Your task to perform on an android device: show emergency info Image 0: 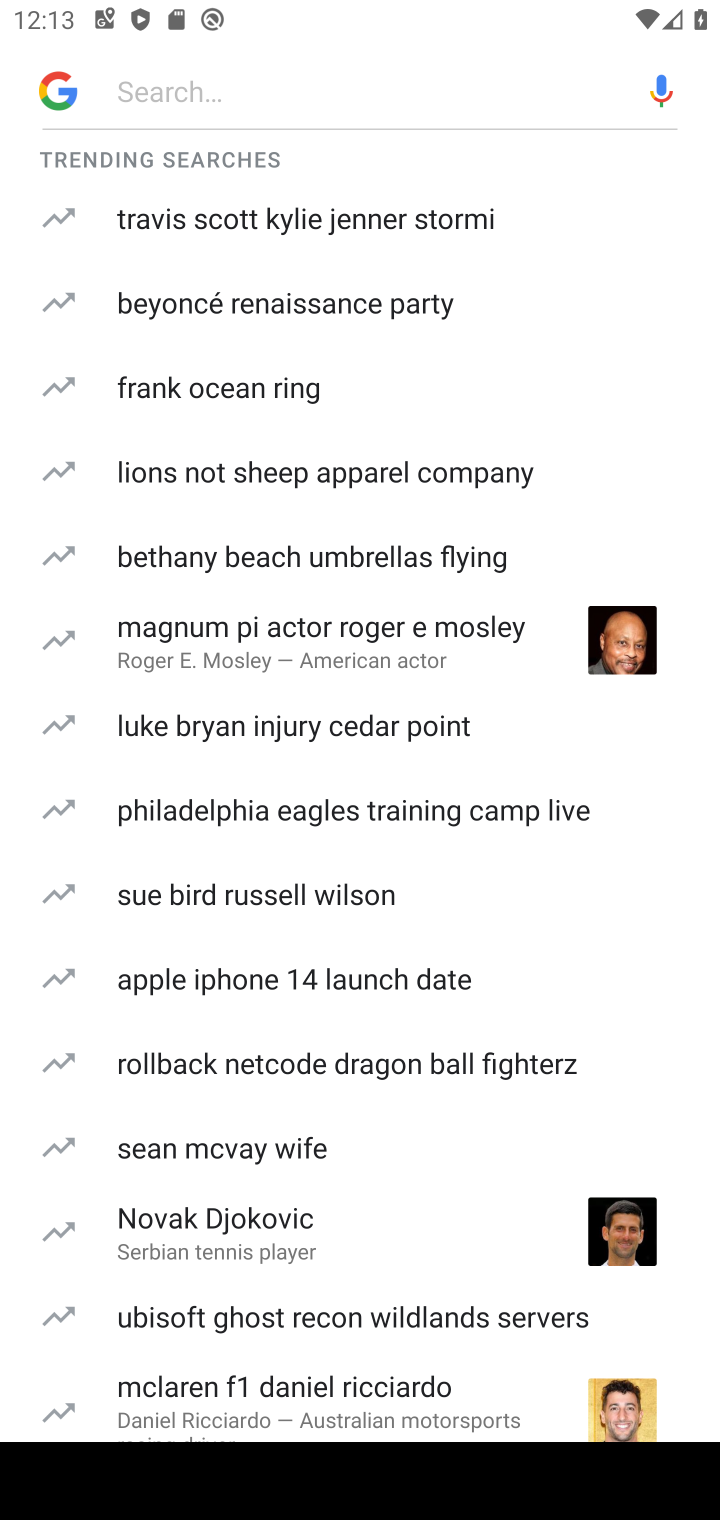
Step 0: press back button
Your task to perform on an android device: show emergency info Image 1: 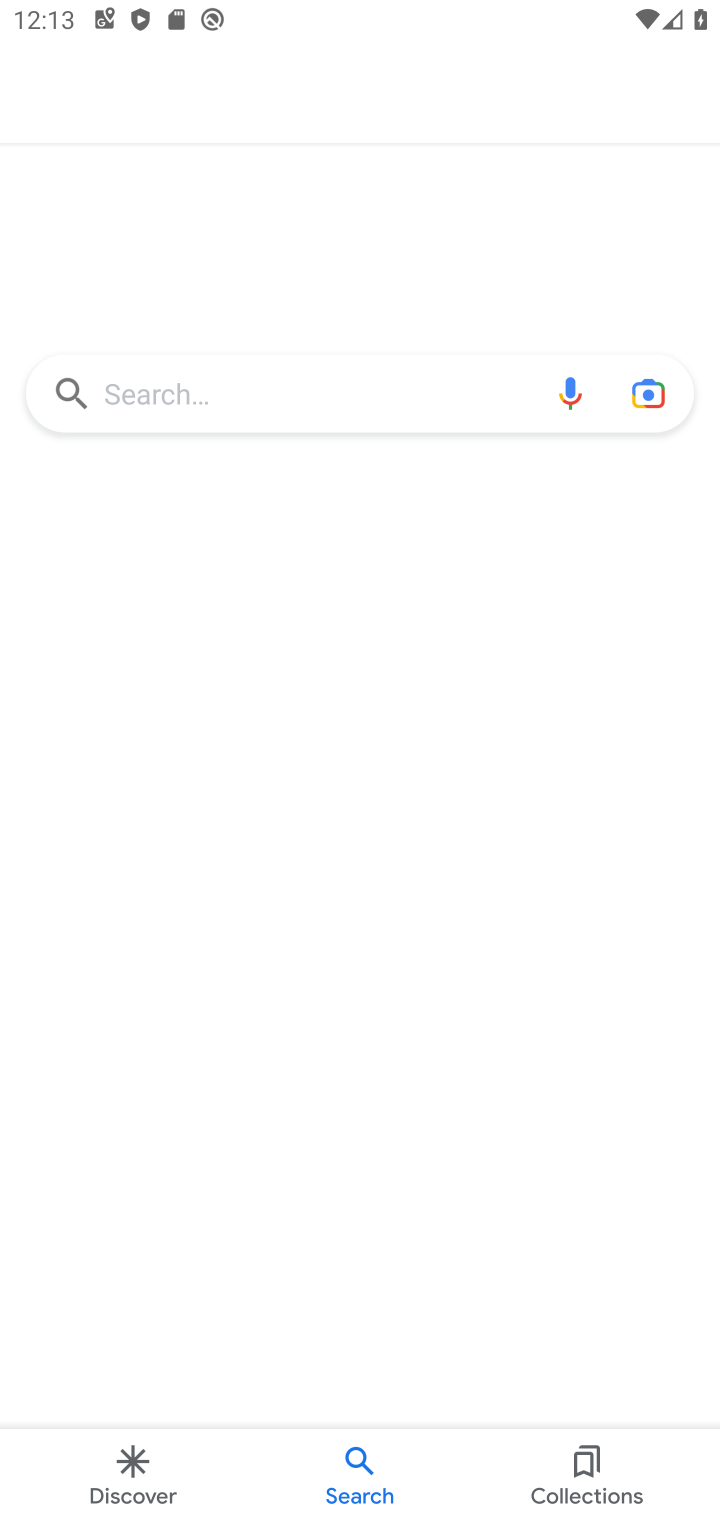
Step 1: press back button
Your task to perform on an android device: show emergency info Image 2: 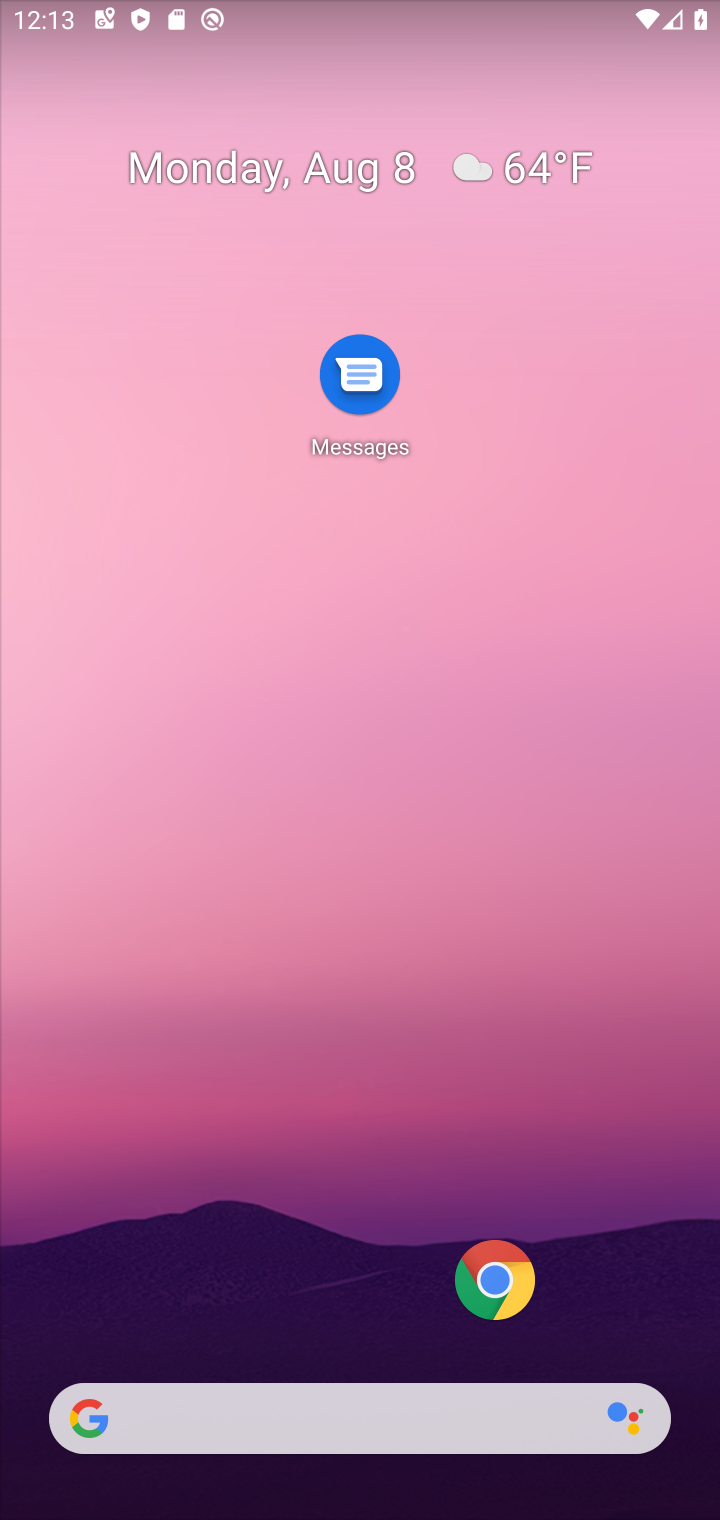
Step 2: drag from (413, 356) to (477, 198)
Your task to perform on an android device: show emergency info Image 3: 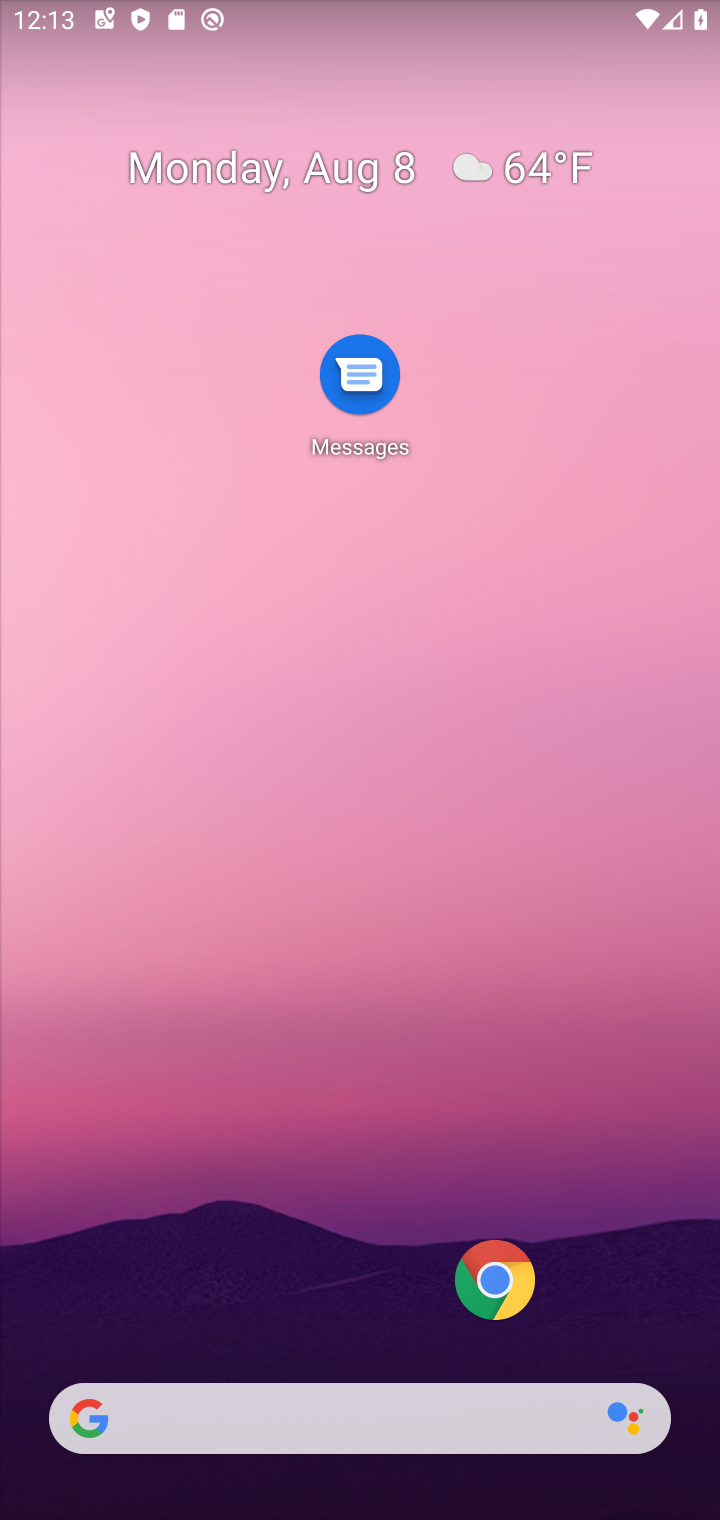
Step 3: drag from (468, 665) to (604, 50)
Your task to perform on an android device: show emergency info Image 4: 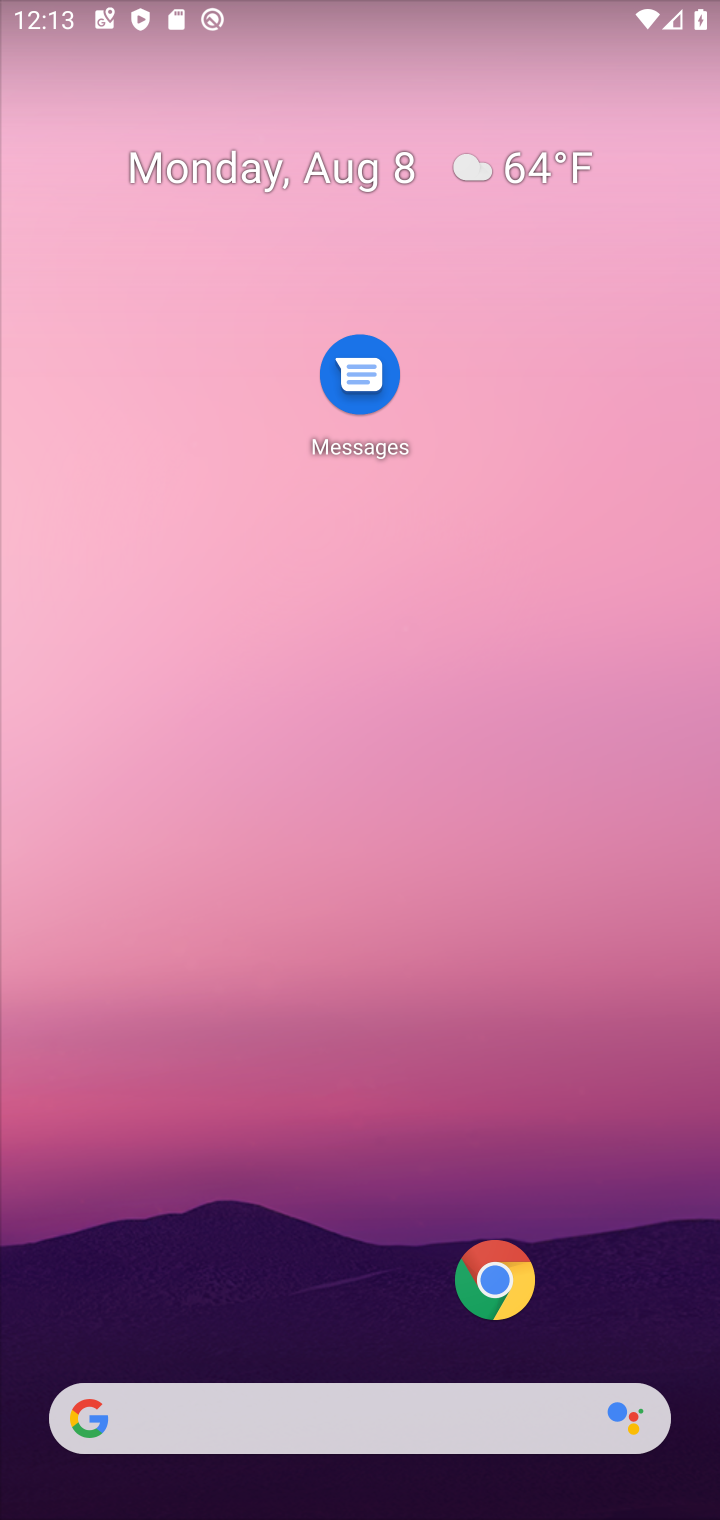
Step 4: drag from (185, 1313) to (606, 19)
Your task to perform on an android device: show emergency info Image 5: 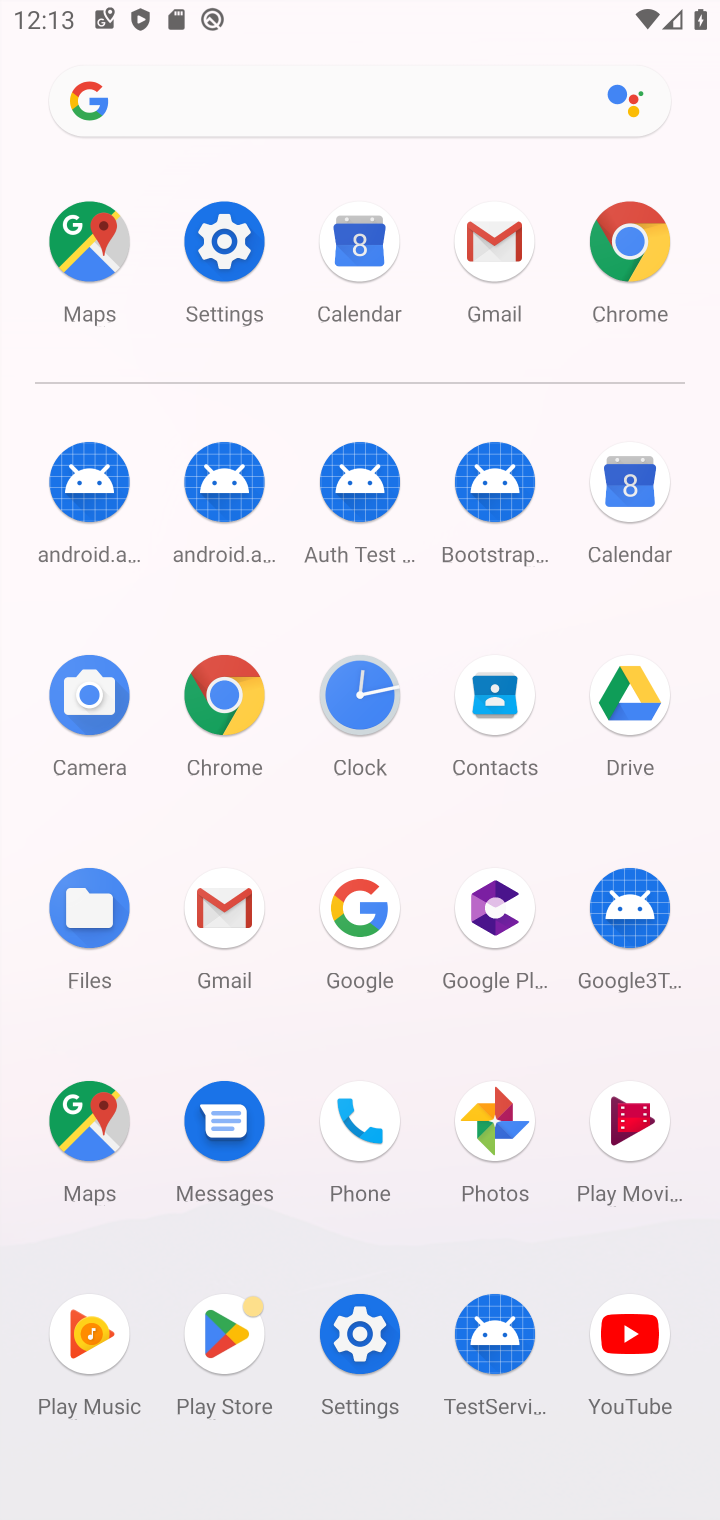
Step 5: click (224, 244)
Your task to perform on an android device: show emergency info Image 6: 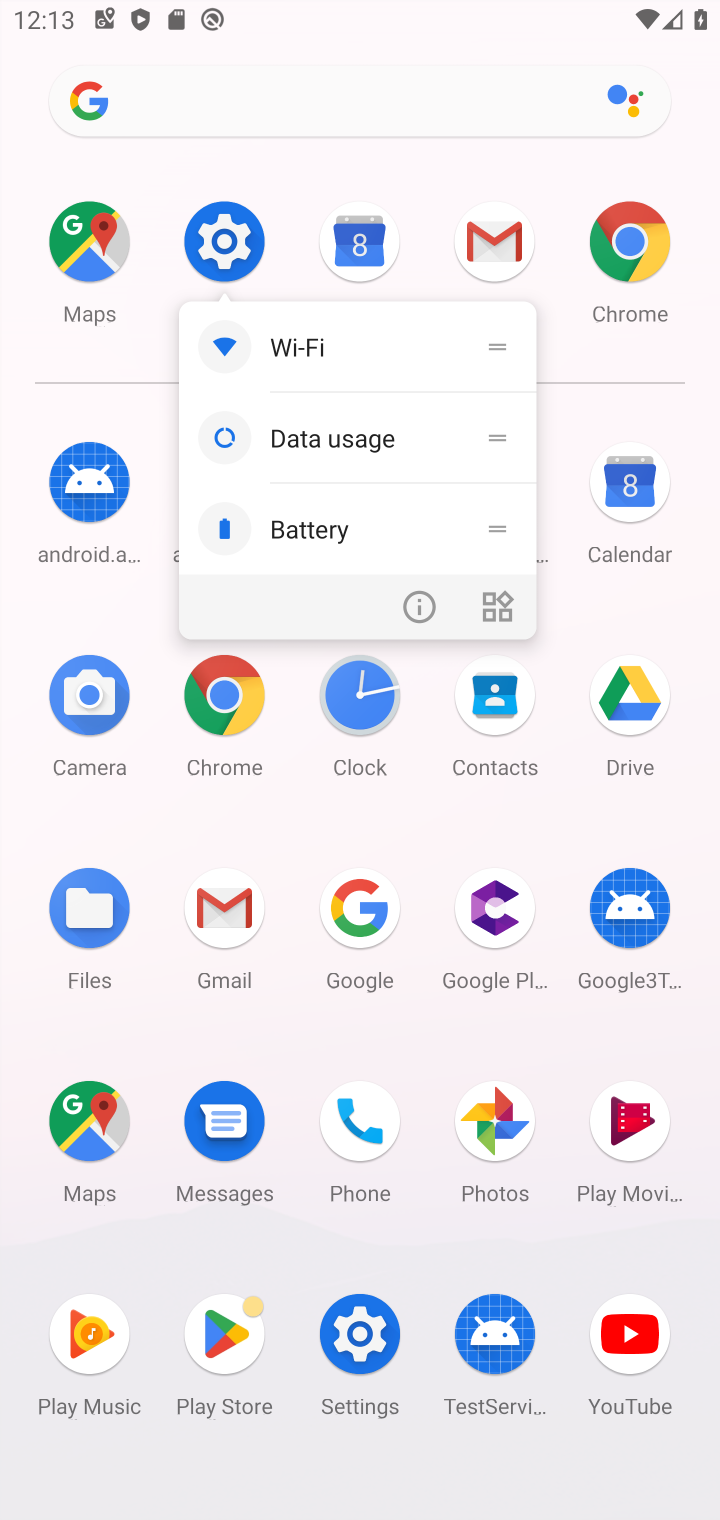
Step 6: click (215, 242)
Your task to perform on an android device: show emergency info Image 7: 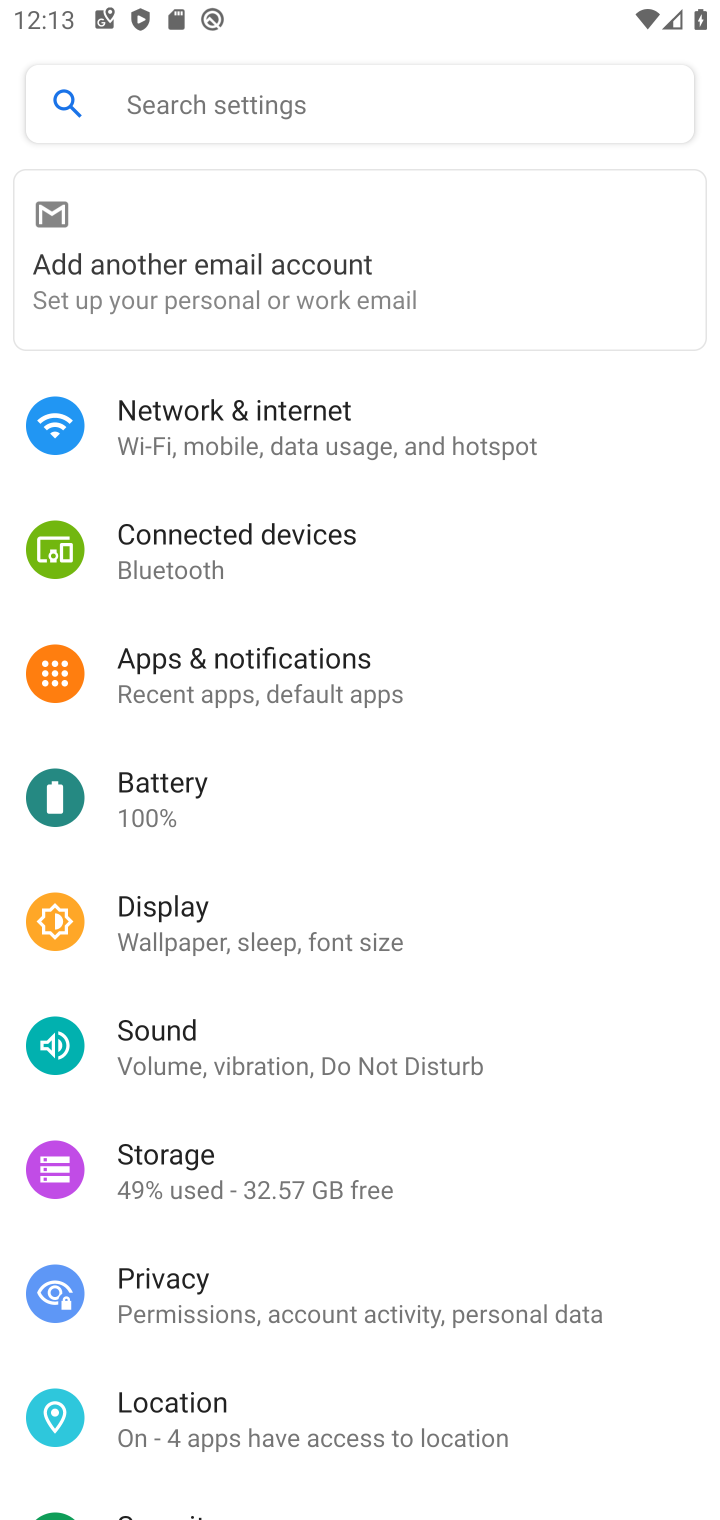
Step 7: drag from (366, 1300) to (503, 61)
Your task to perform on an android device: show emergency info Image 8: 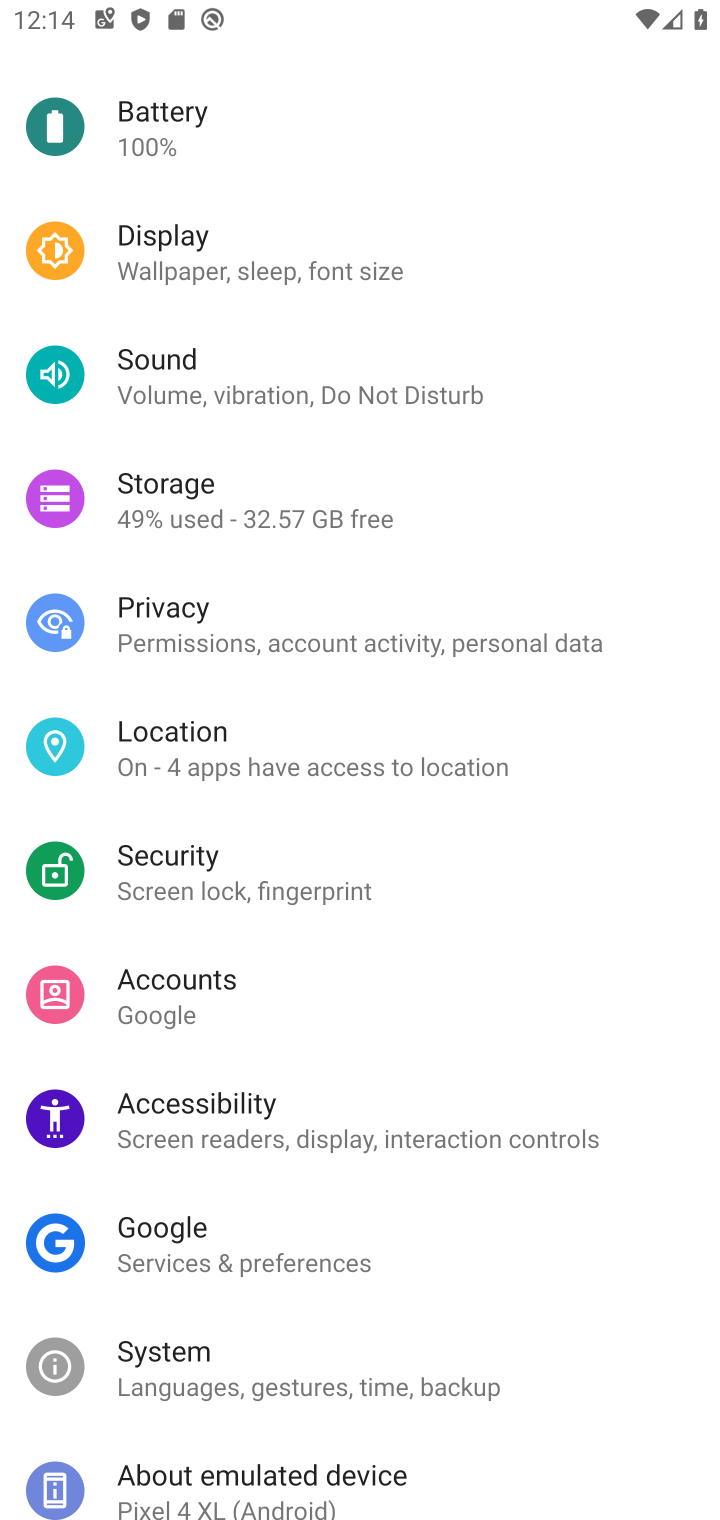
Step 8: drag from (226, 1364) to (434, 42)
Your task to perform on an android device: show emergency info Image 9: 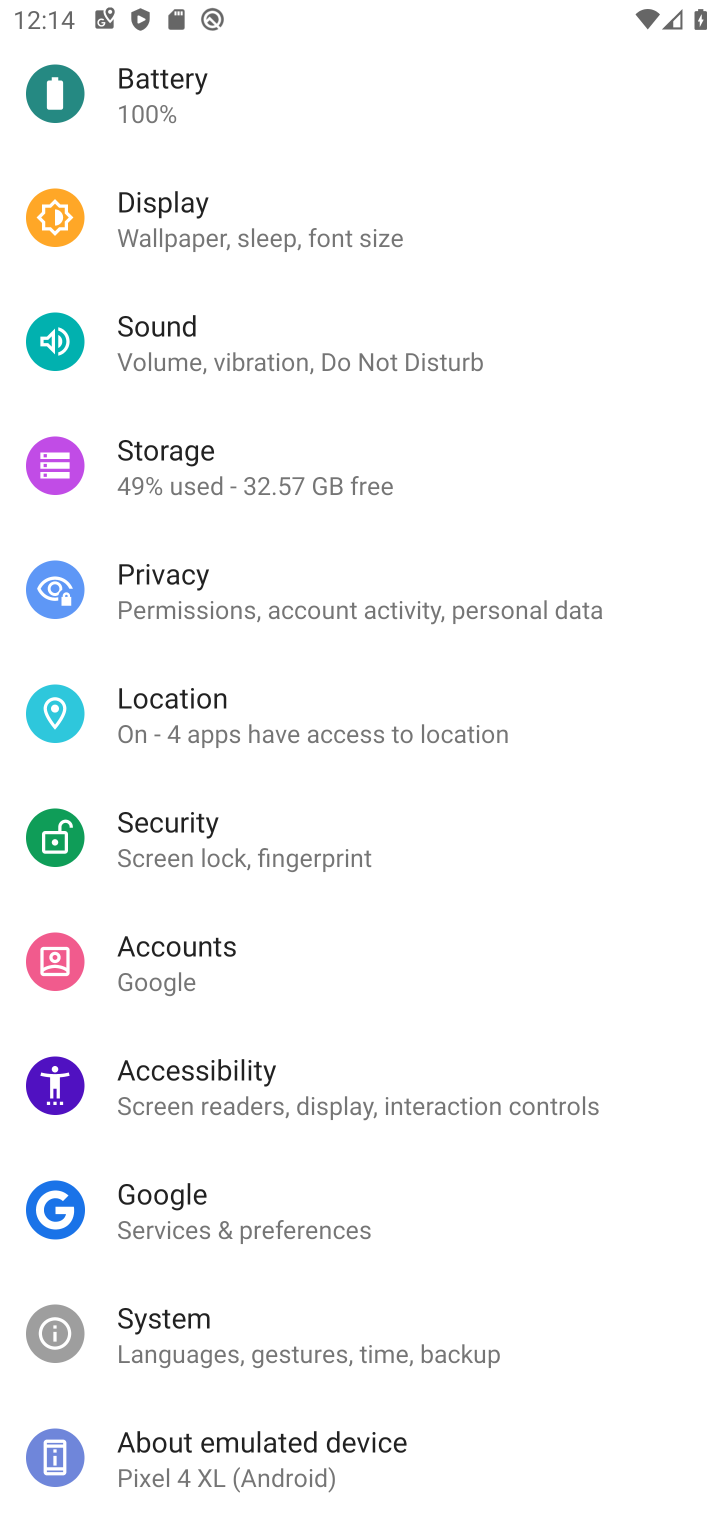
Step 9: click (243, 1324)
Your task to perform on an android device: show emergency info Image 10: 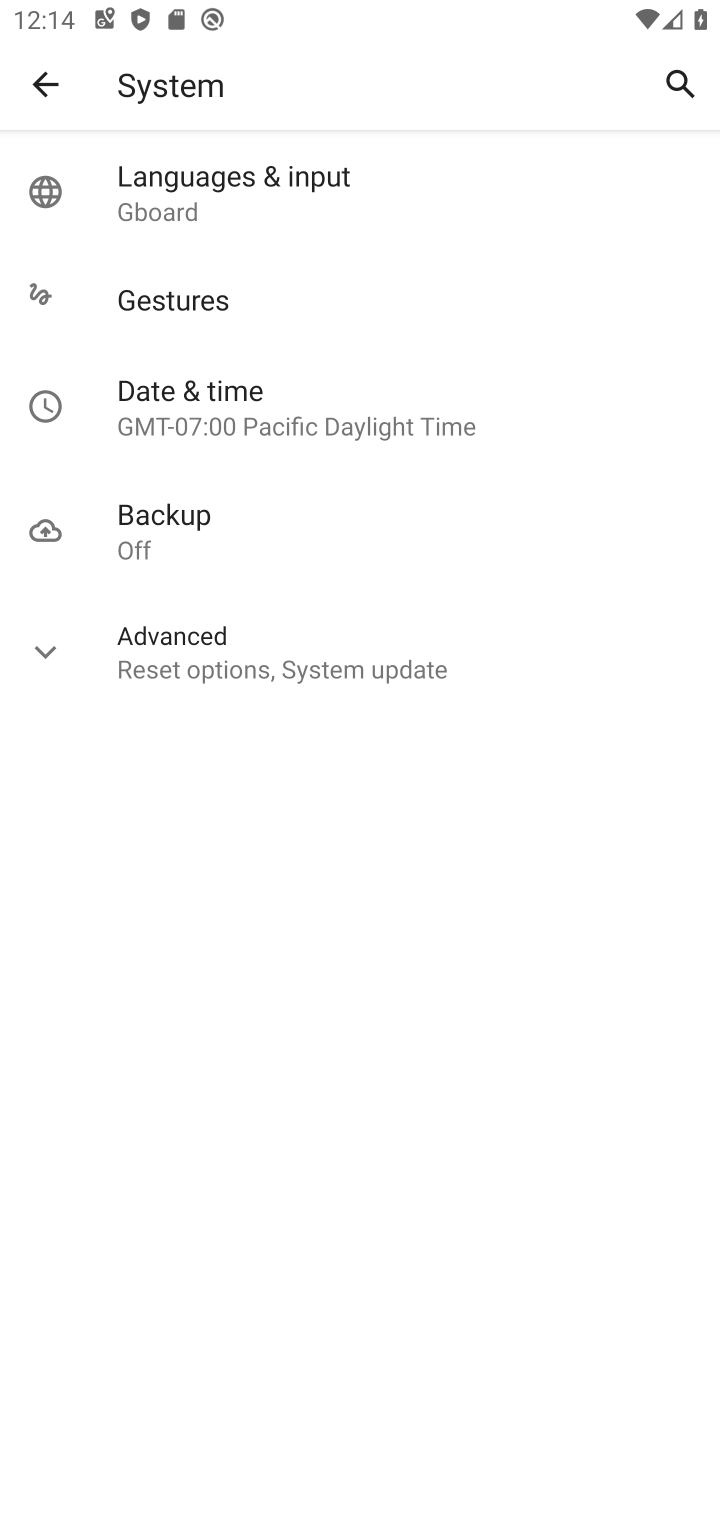
Step 10: click (76, 94)
Your task to perform on an android device: show emergency info Image 11: 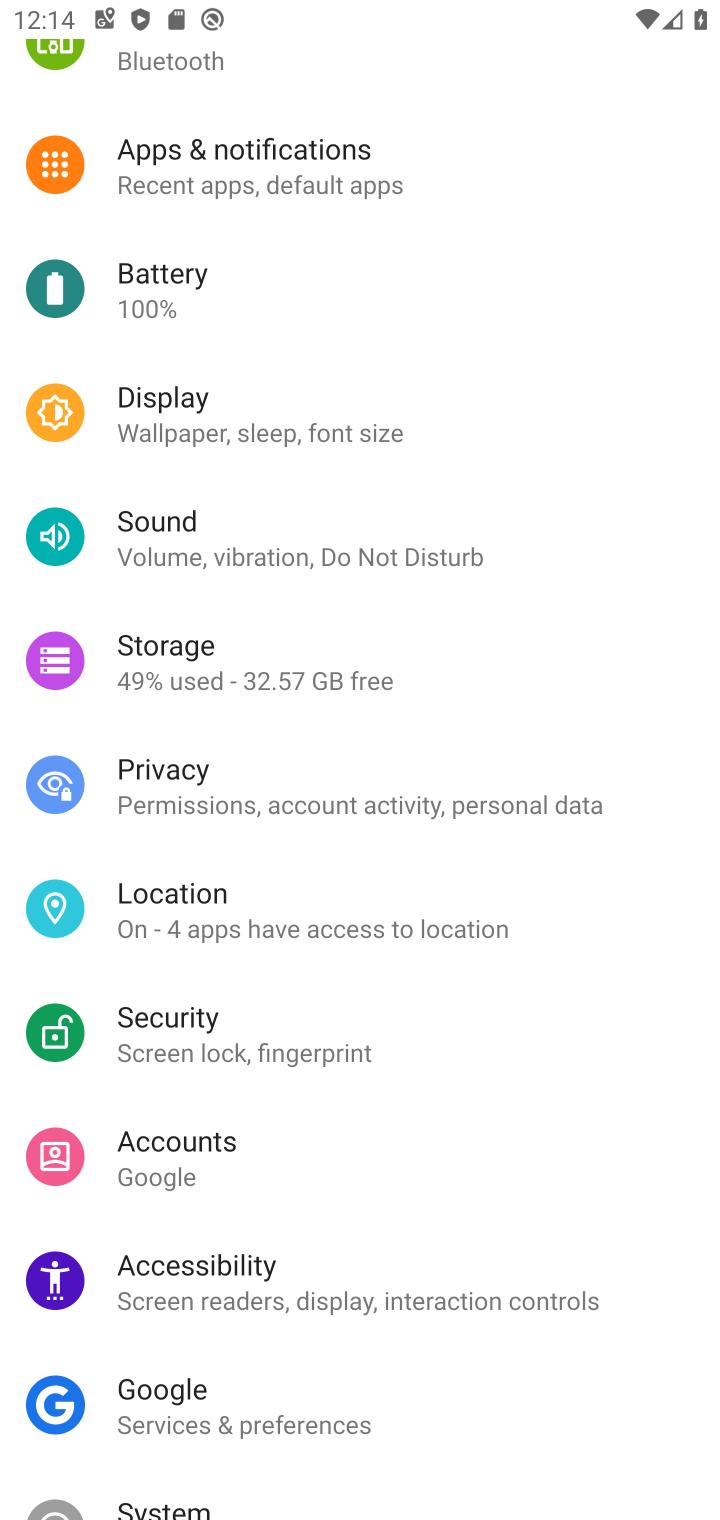
Step 11: drag from (417, 1289) to (579, 189)
Your task to perform on an android device: show emergency info Image 12: 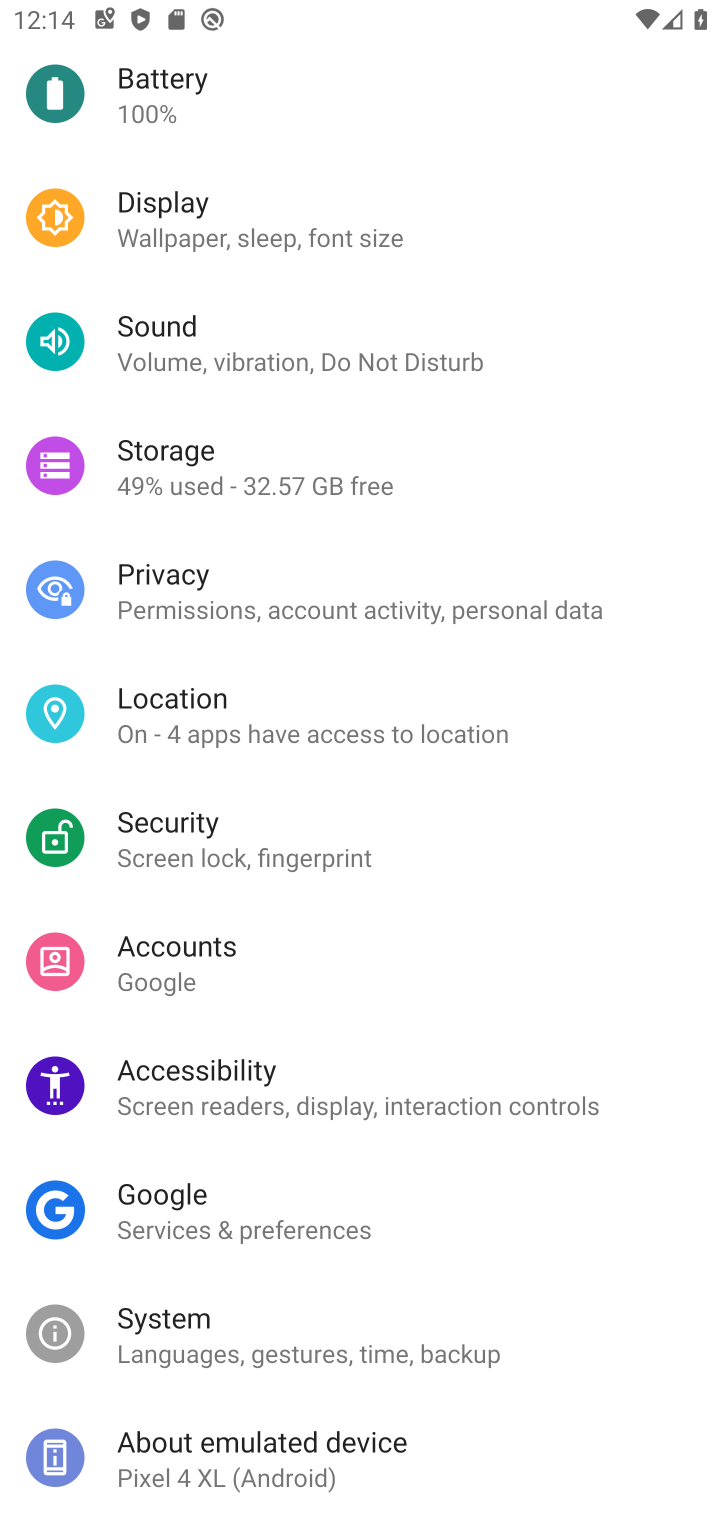
Step 12: click (307, 1462)
Your task to perform on an android device: show emergency info Image 13: 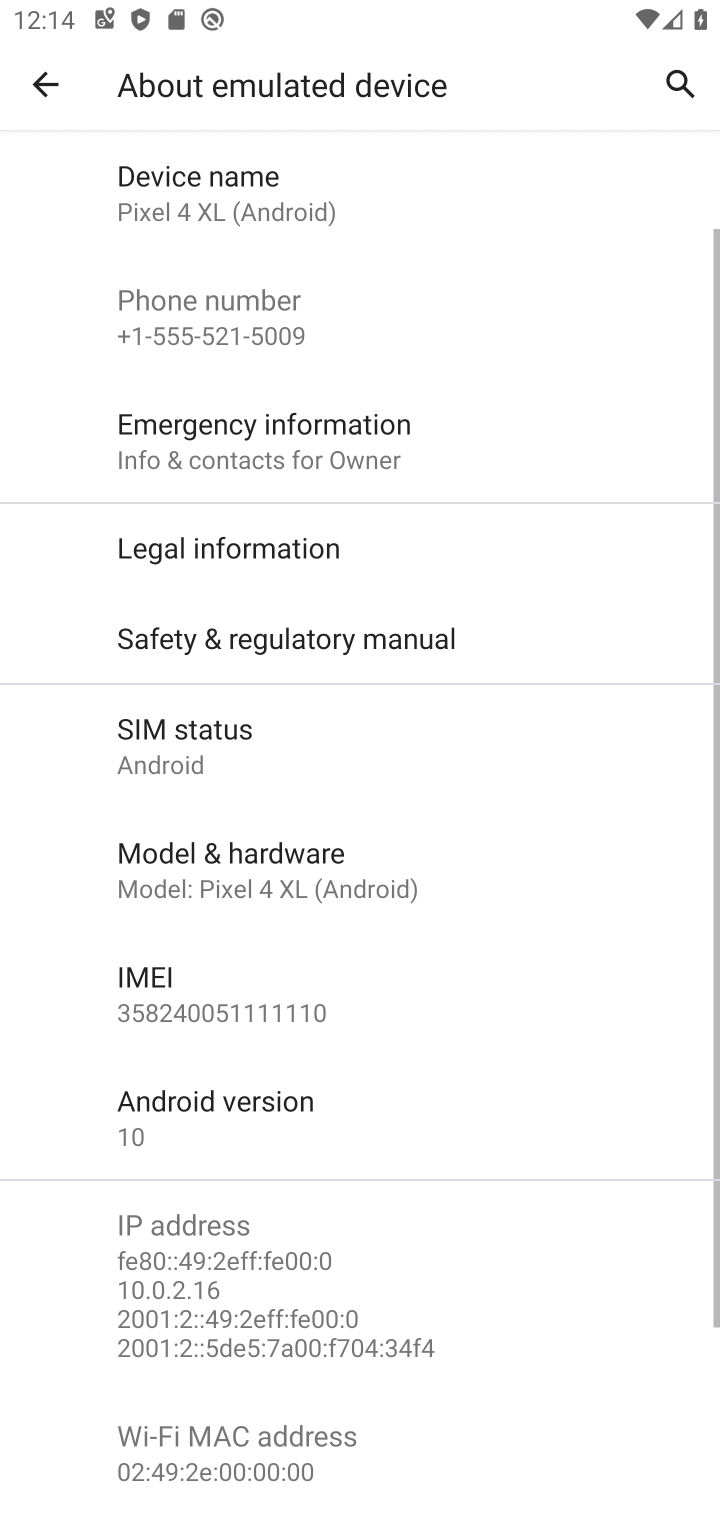
Step 13: click (246, 436)
Your task to perform on an android device: show emergency info Image 14: 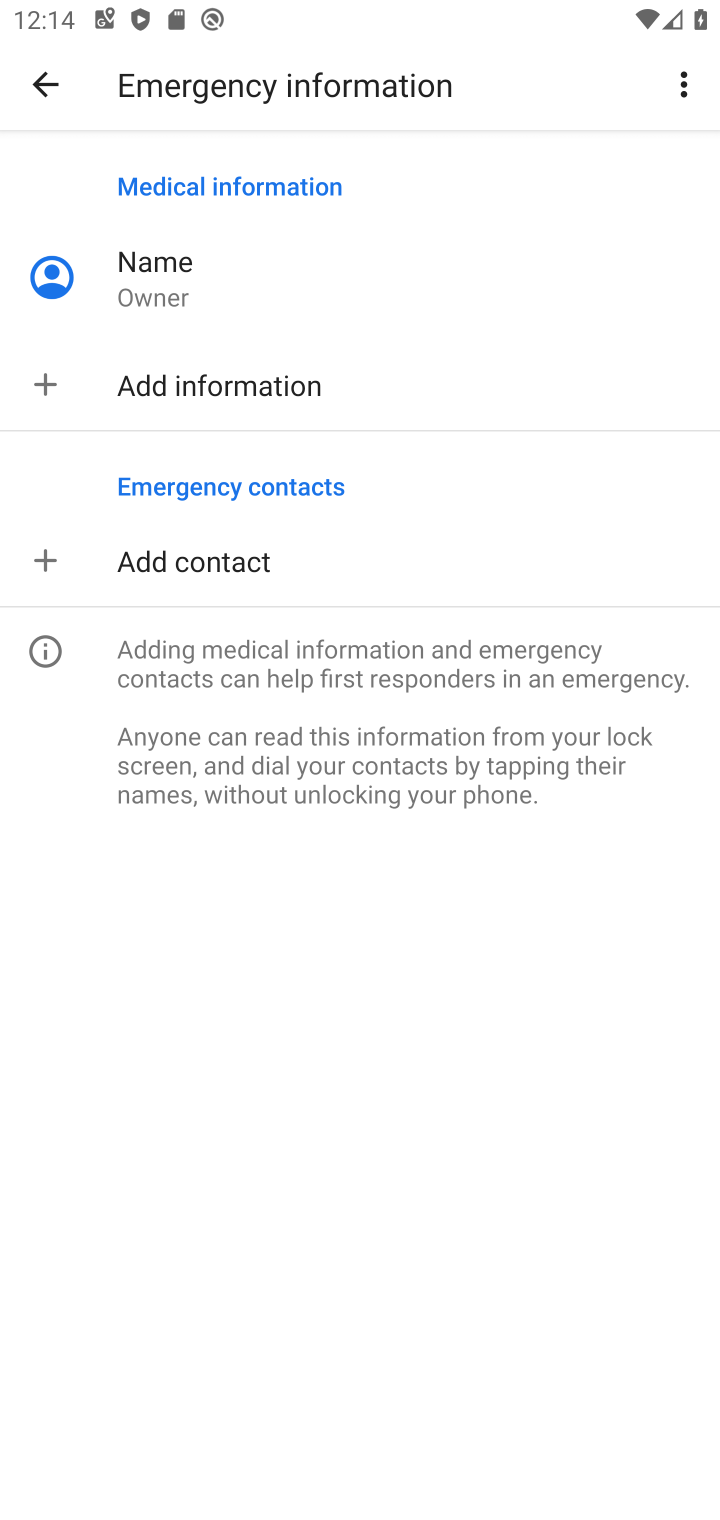
Step 14: task complete